Your task to perform on an android device: make emails show in primary in the gmail app Image 0: 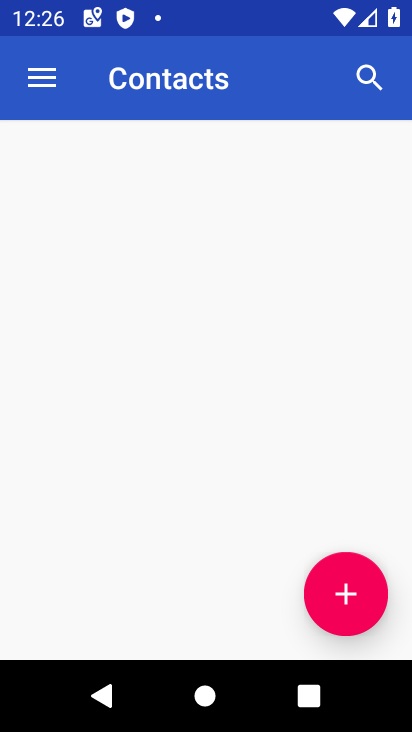
Step 0: drag from (176, 564) to (148, 333)
Your task to perform on an android device: make emails show in primary in the gmail app Image 1: 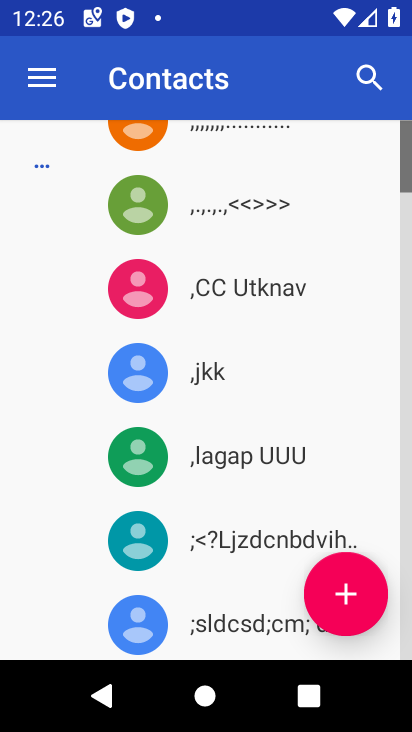
Step 1: press home button
Your task to perform on an android device: make emails show in primary in the gmail app Image 2: 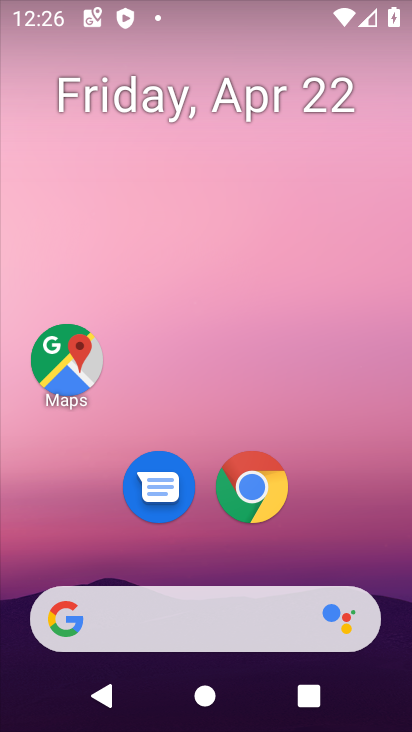
Step 2: drag from (209, 550) to (210, 170)
Your task to perform on an android device: make emails show in primary in the gmail app Image 3: 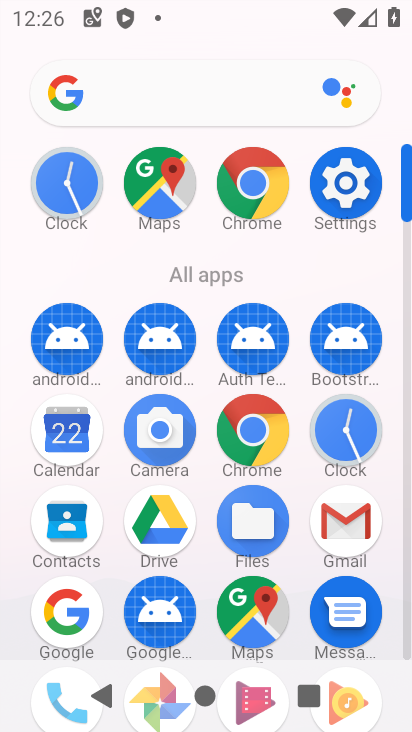
Step 3: click (354, 536)
Your task to perform on an android device: make emails show in primary in the gmail app Image 4: 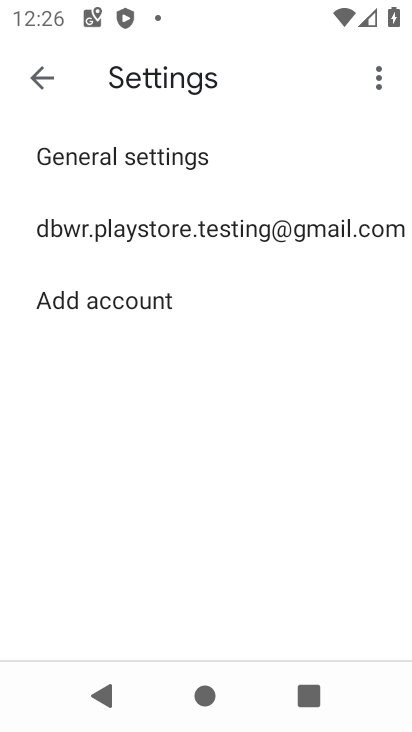
Step 4: click (210, 222)
Your task to perform on an android device: make emails show in primary in the gmail app Image 5: 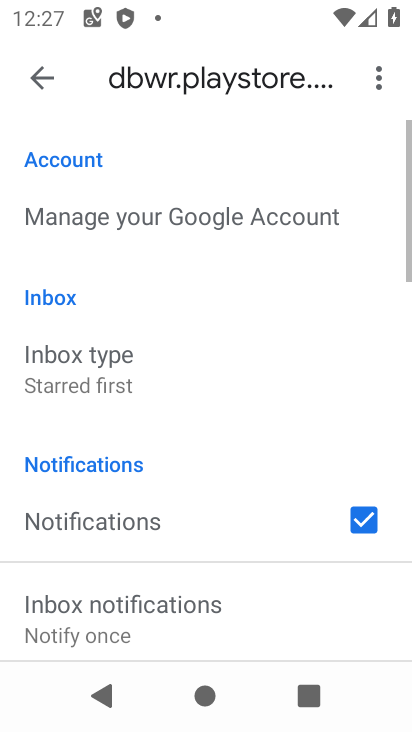
Step 5: drag from (195, 557) to (196, 367)
Your task to perform on an android device: make emails show in primary in the gmail app Image 6: 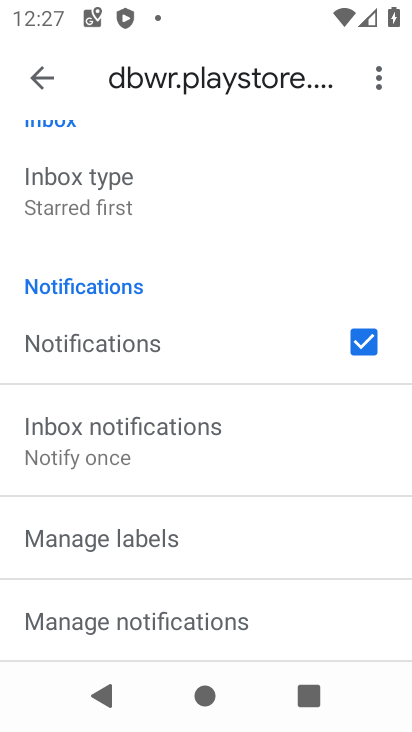
Step 6: click (88, 194)
Your task to perform on an android device: make emails show in primary in the gmail app Image 7: 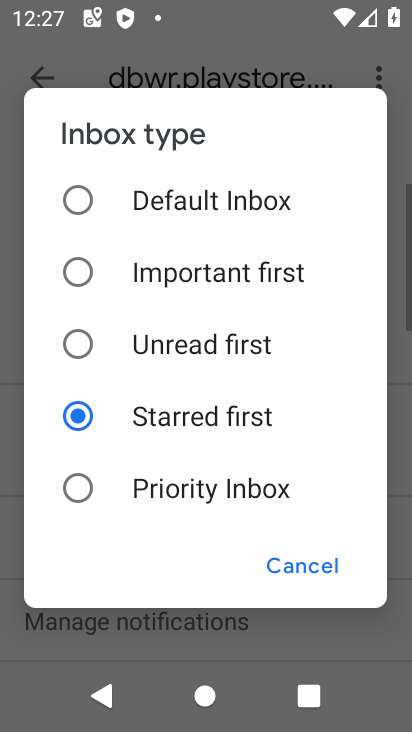
Step 7: click (88, 194)
Your task to perform on an android device: make emails show in primary in the gmail app Image 8: 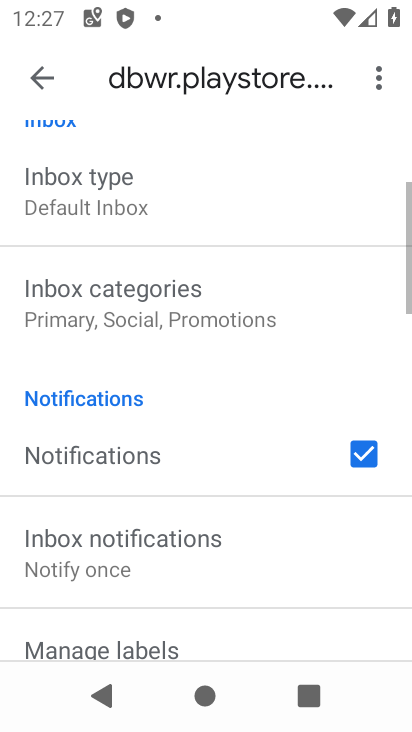
Step 8: click (103, 286)
Your task to perform on an android device: make emails show in primary in the gmail app Image 9: 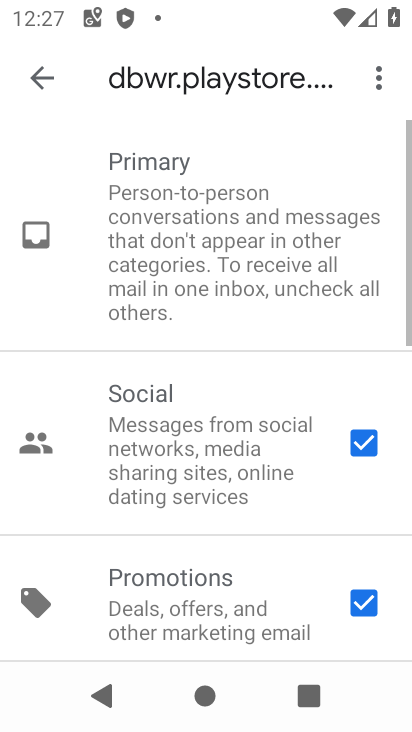
Step 9: click (220, 234)
Your task to perform on an android device: make emails show in primary in the gmail app Image 10: 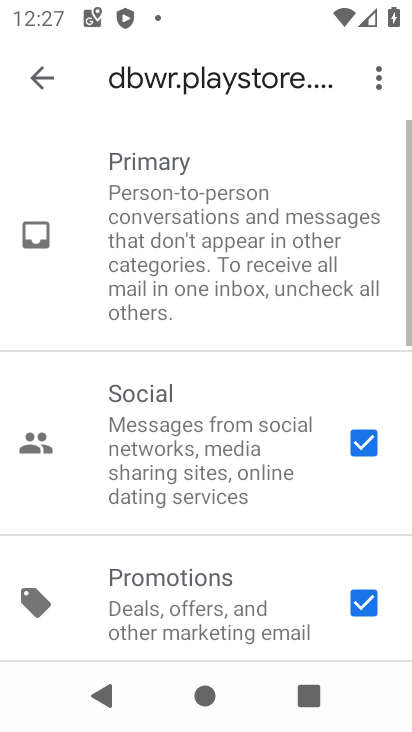
Step 10: task complete